Your task to perform on an android device: check data usage Image 0: 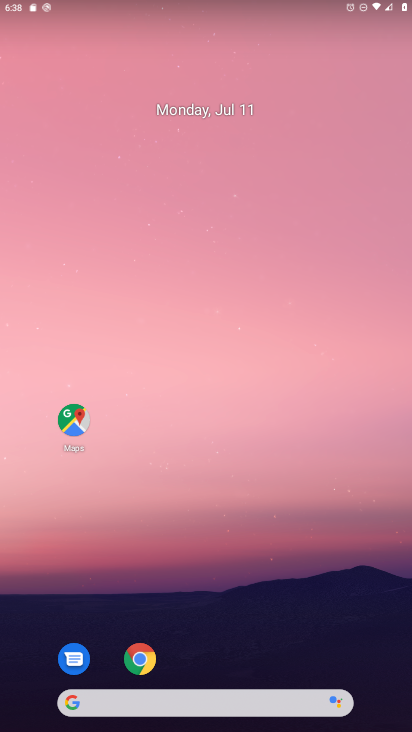
Step 0: drag from (363, 645) to (324, 2)
Your task to perform on an android device: check data usage Image 1: 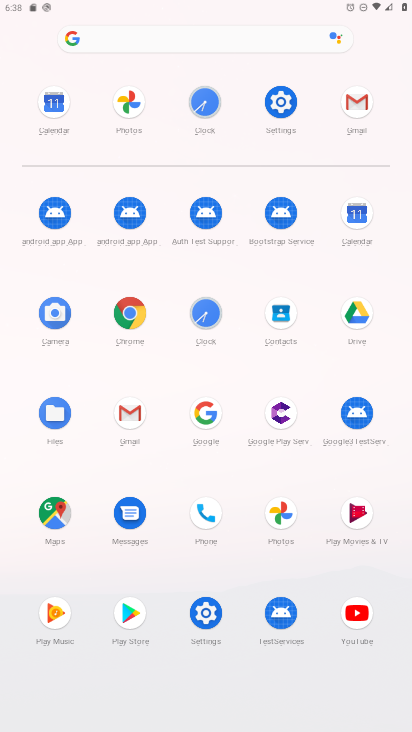
Step 1: click (207, 614)
Your task to perform on an android device: check data usage Image 2: 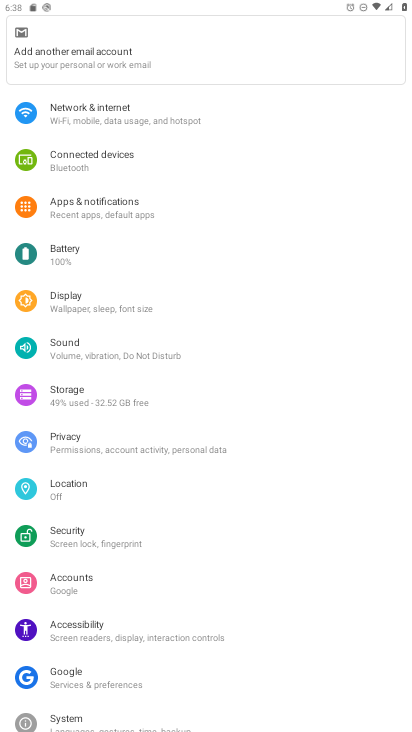
Step 2: click (81, 111)
Your task to perform on an android device: check data usage Image 3: 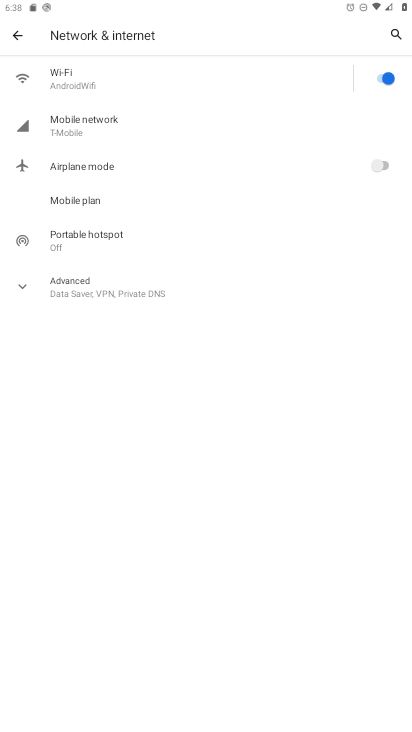
Step 3: click (80, 116)
Your task to perform on an android device: check data usage Image 4: 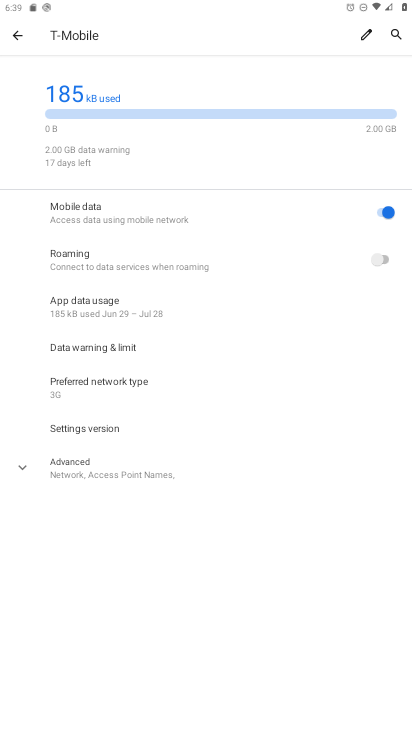
Step 4: task complete